Your task to perform on an android device: turn on location history Image 0: 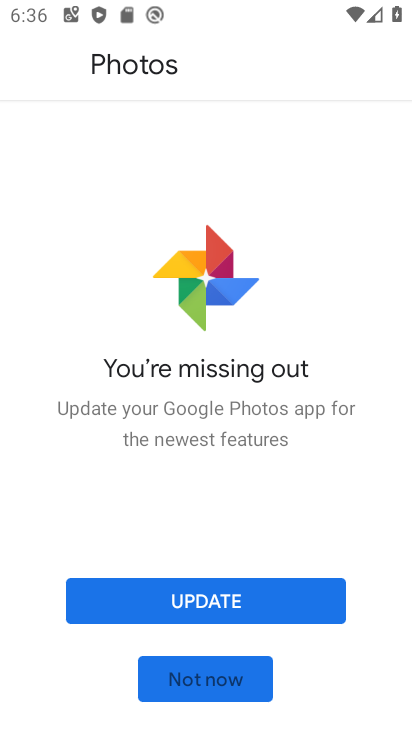
Step 0: press back button
Your task to perform on an android device: turn on location history Image 1: 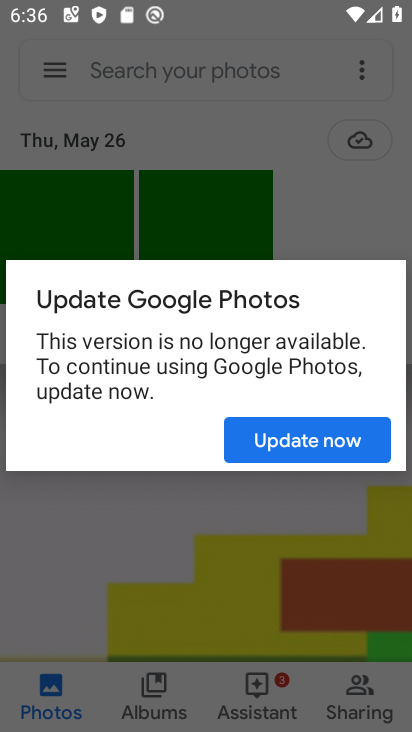
Step 1: press home button
Your task to perform on an android device: turn on location history Image 2: 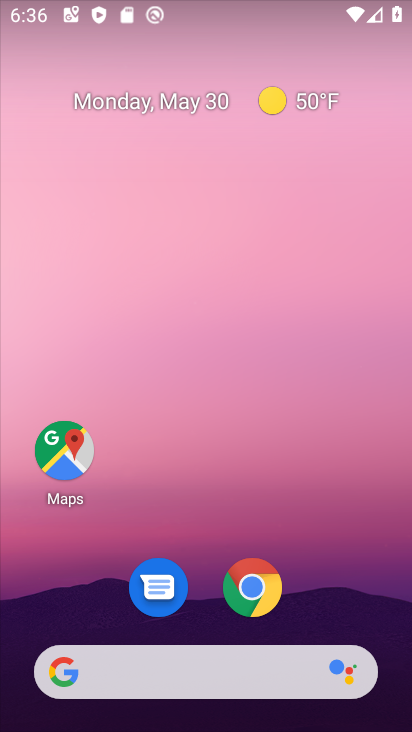
Step 2: drag from (333, 592) to (253, 28)
Your task to perform on an android device: turn on location history Image 3: 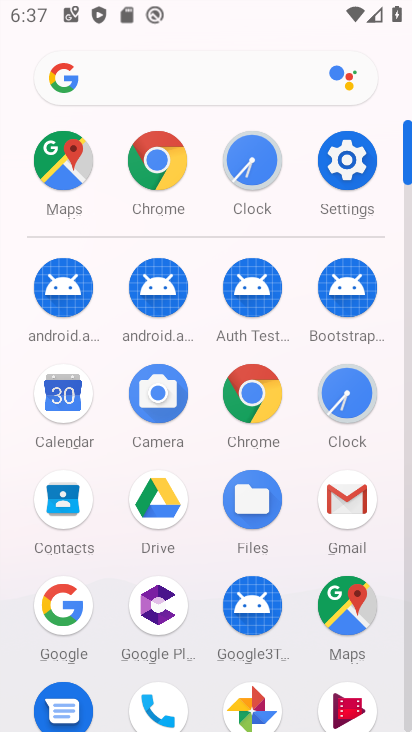
Step 3: click (349, 159)
Your task to perform on an android device: turn on location history Image 4: 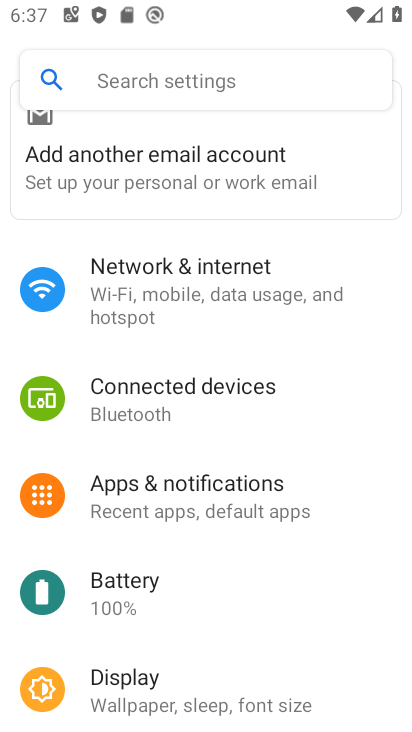
Step 4: drag from (355, 475) to (358, 56)
Your task to perform on an android device: turn on location history Image 5: 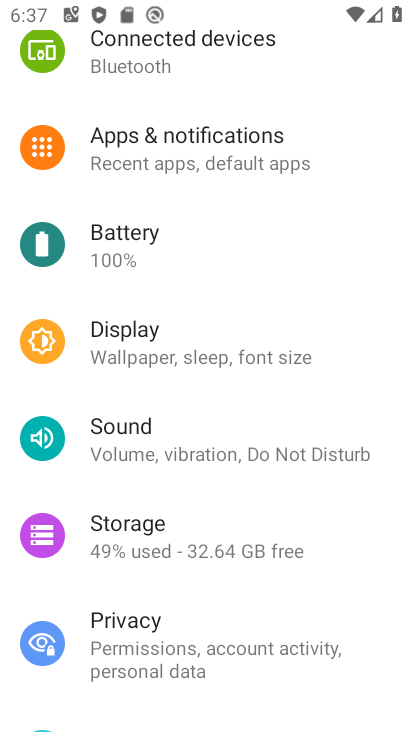
Step 5: drag from (270, 525) to (259, 147)
Your task to perform on an android device: turn on location history Image 6: 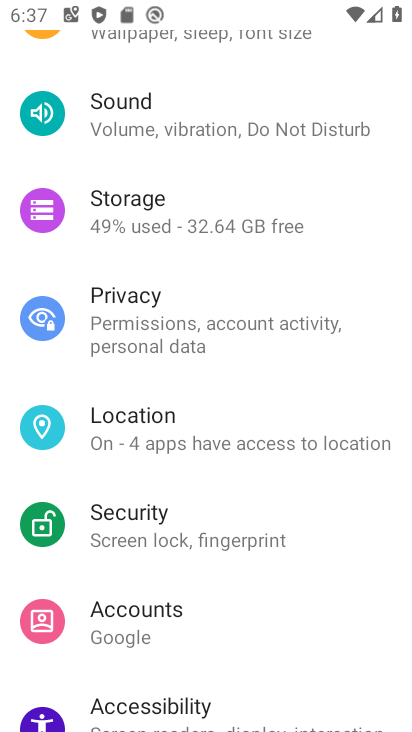
Step 6: click (161, 426)
Your task to perform on an android device: turn on location history Image 7: 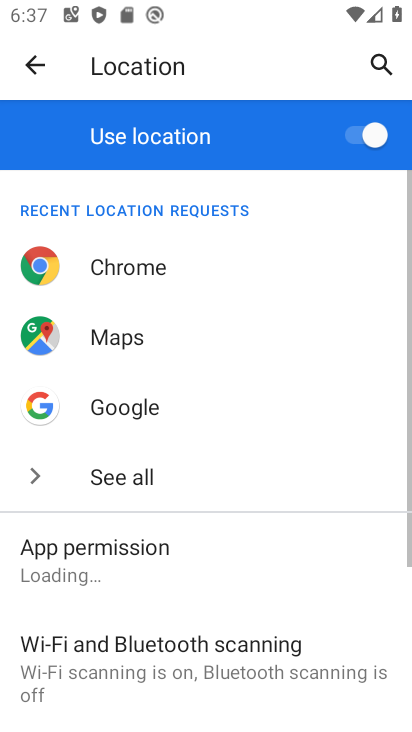
Step 7: drag from (221, 559) to (239, 161)
Your task to perform on an android device: turn on location history Image 8: 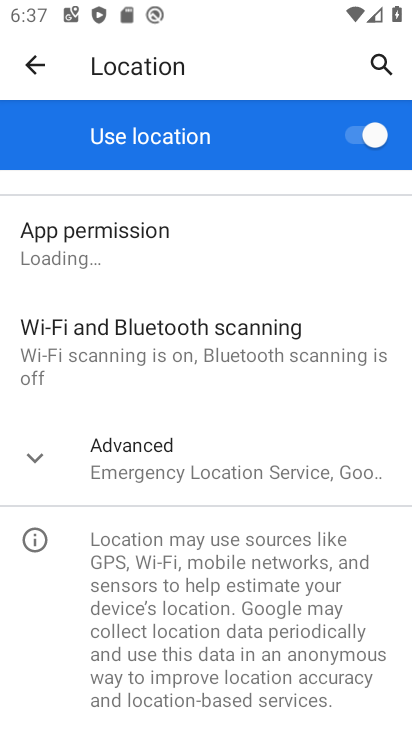
Step 8: click (85, 468)
Your task to perform on an android device: turn on location history Image 9: 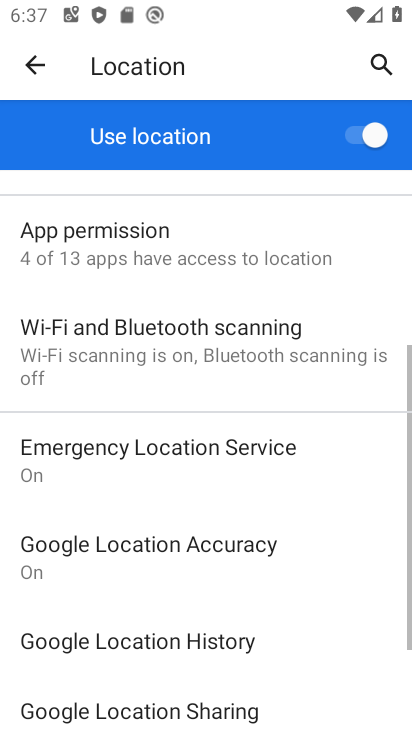
Step 9: drag from (297, 590) to (300, 234)
Your task to perform on an android device: turn on location history Image 10: 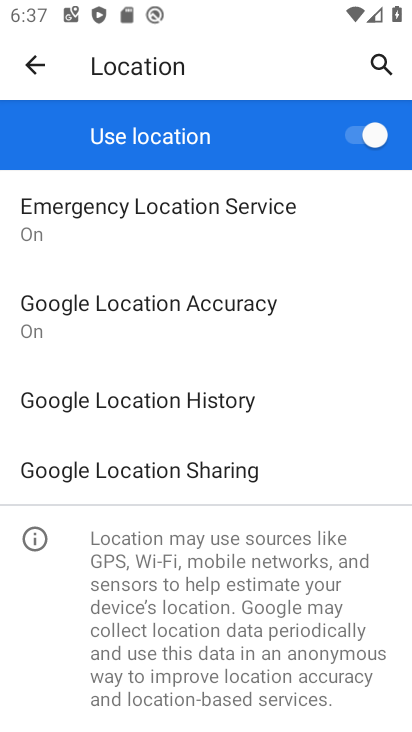
Step 10: click (182, 387)
Your task to perform on an android device: turn on location history Image 11: 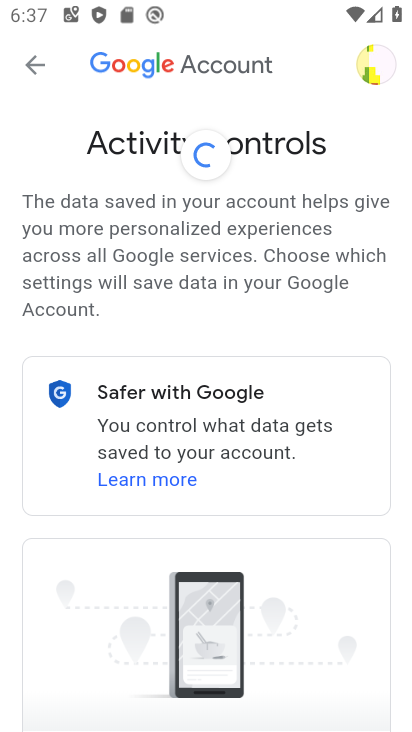
Step 11: drag from (286, 540) to (274, 155)
Your task to perform on an android device: turn on location history Image 12: 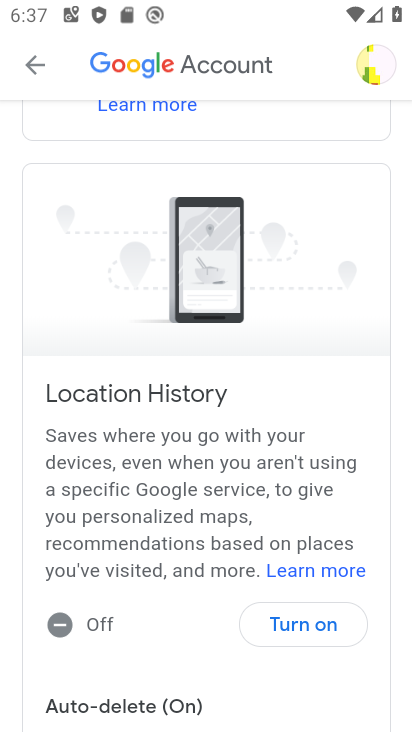
Step 12: drag from (259, 494) to (277, 171)
Your task to perform on an android device: turn on location history Image 13: 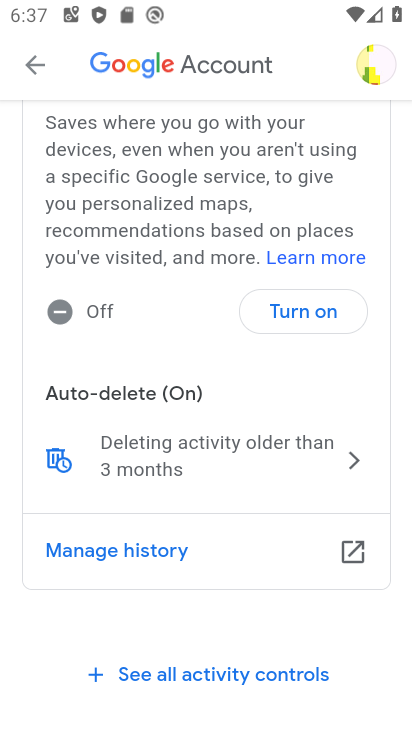
Step 13: click (307, 308)
Your task to perform on an android device: turn on location history Image 14: 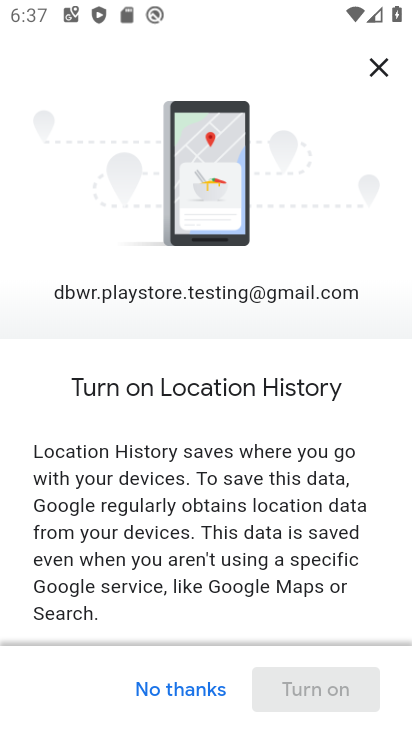
Step 14: drag from (272, 557) to (287, 131)
Your task to perform on an android device: turn on location history Image 15: 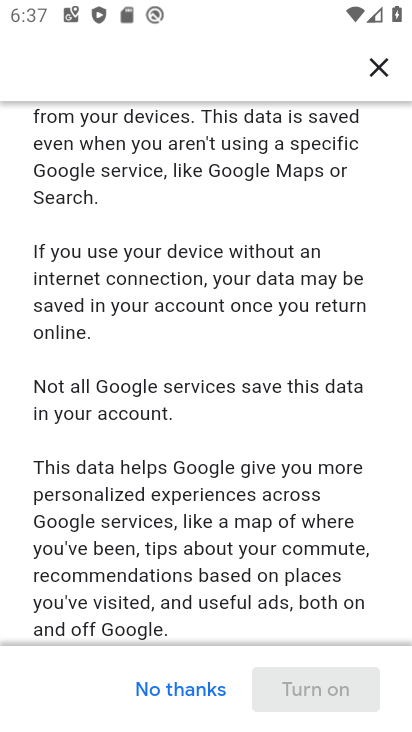
Step 15: drag from (288, 536) to (346, 83)
Your task to perform on an android device: turn on location history Image 16: 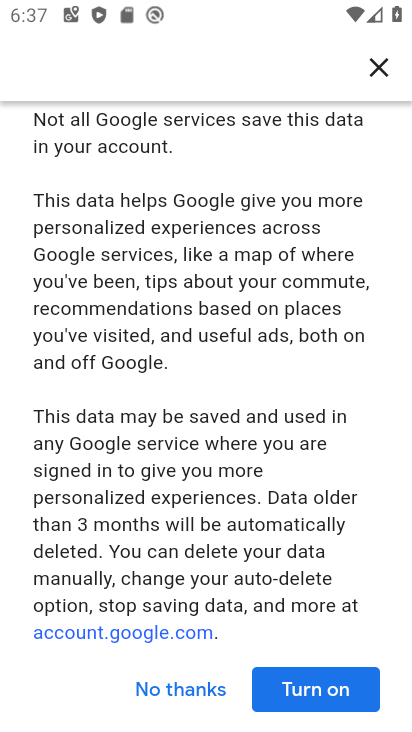
Step 16: drag from (296, 534) to (273, 242)
Your task to perform on an android device: turn on location history Image 17: 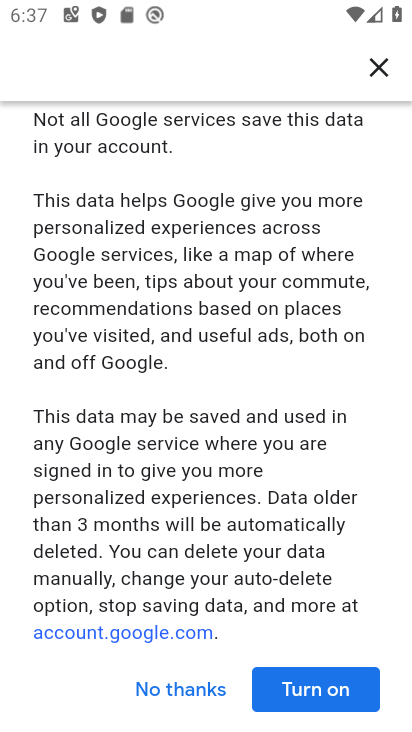
Step 17: click (292, 689)
Your task to perform on an android device: turn on location history Image 18: 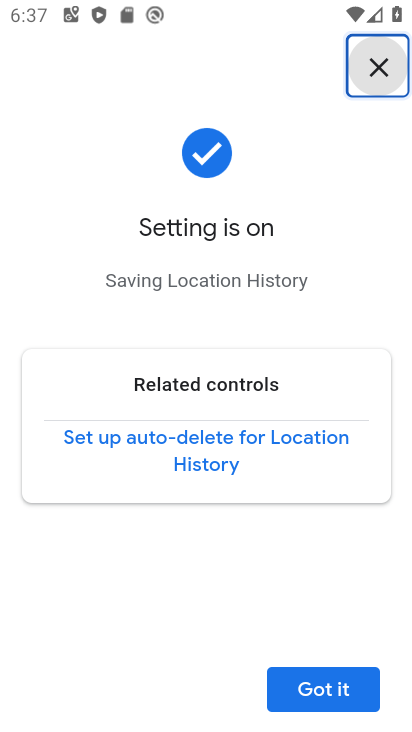
Step 18: task complete